Your task to perform on an android device: Open Google Maps Image 0: 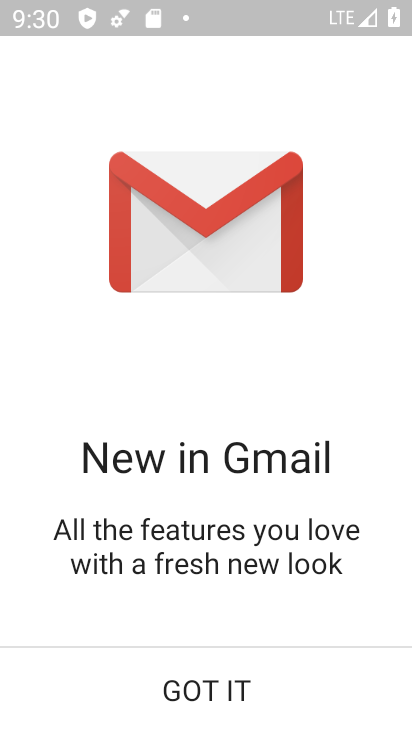
Step 0: click (175, 677)
Your task to perform on an android device: Open Google Maps Image 1: 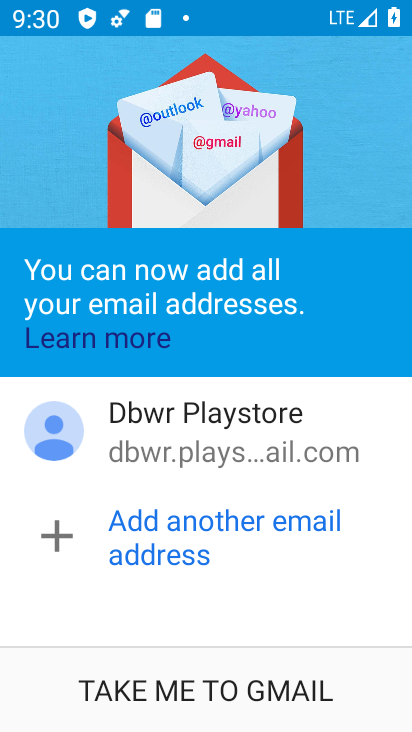
Step 1: press home button
Your task to perform on an android device: Open Google Maps Image 2: 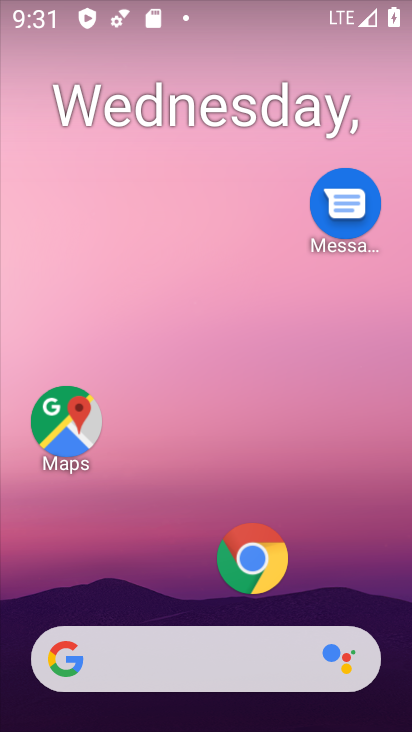
Step 2: click (80, 417)
Your task to perform on an android device: Open Google Maps Image 3: 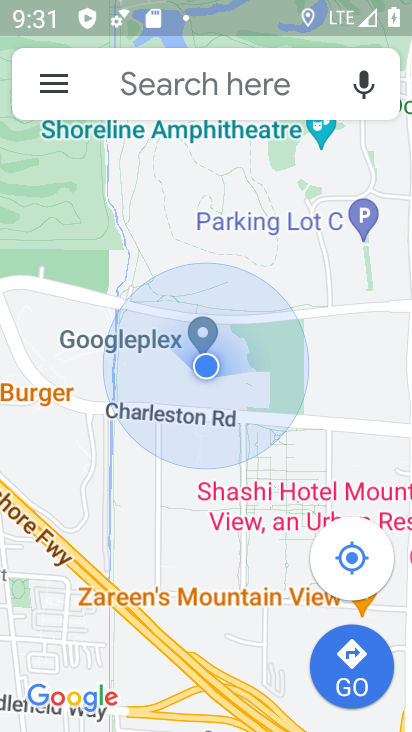
Step 3: task complete